Your task to perform on an android device: turn on showing notifications on the lock screen Image 0: 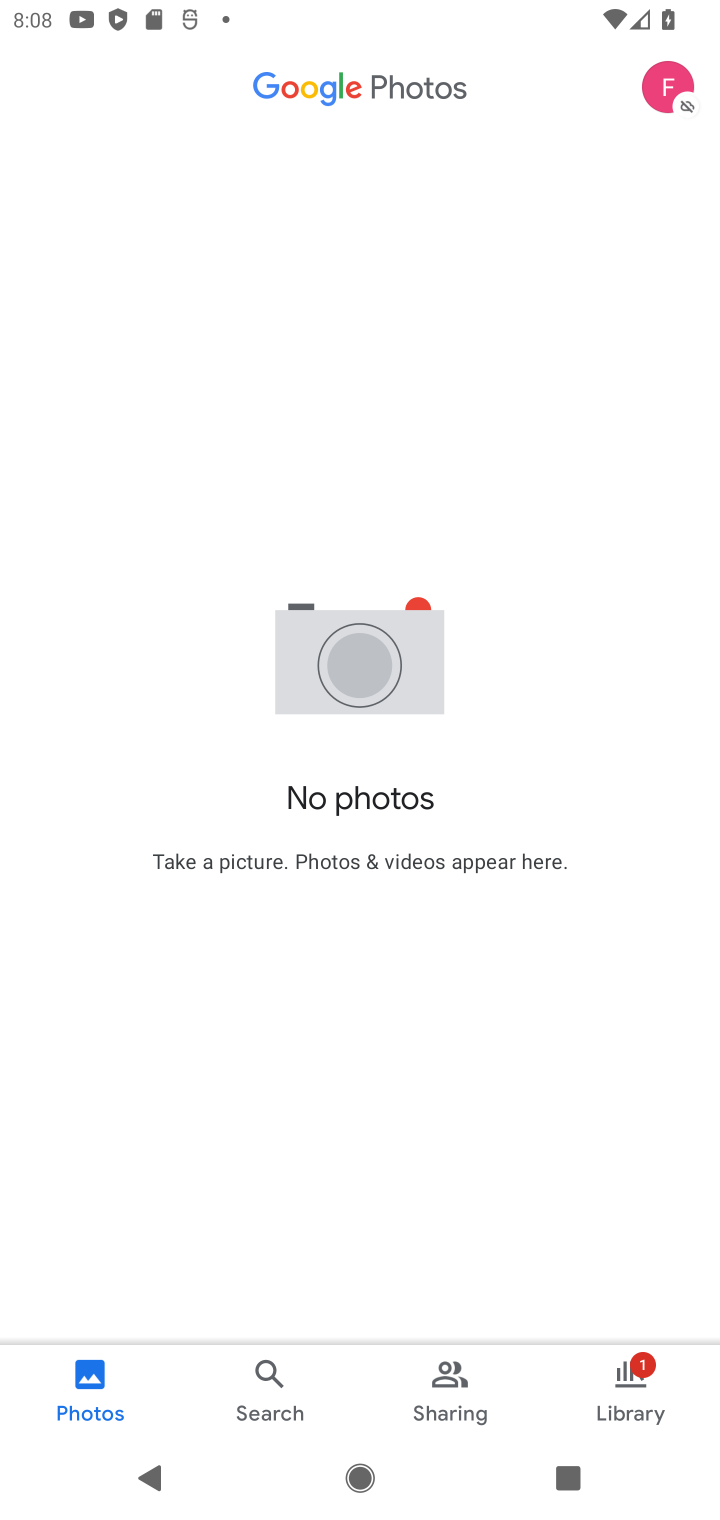
Step 0: press home button
Your task to perform on an android device: turn on showing notifications on the lock screen Image 1: 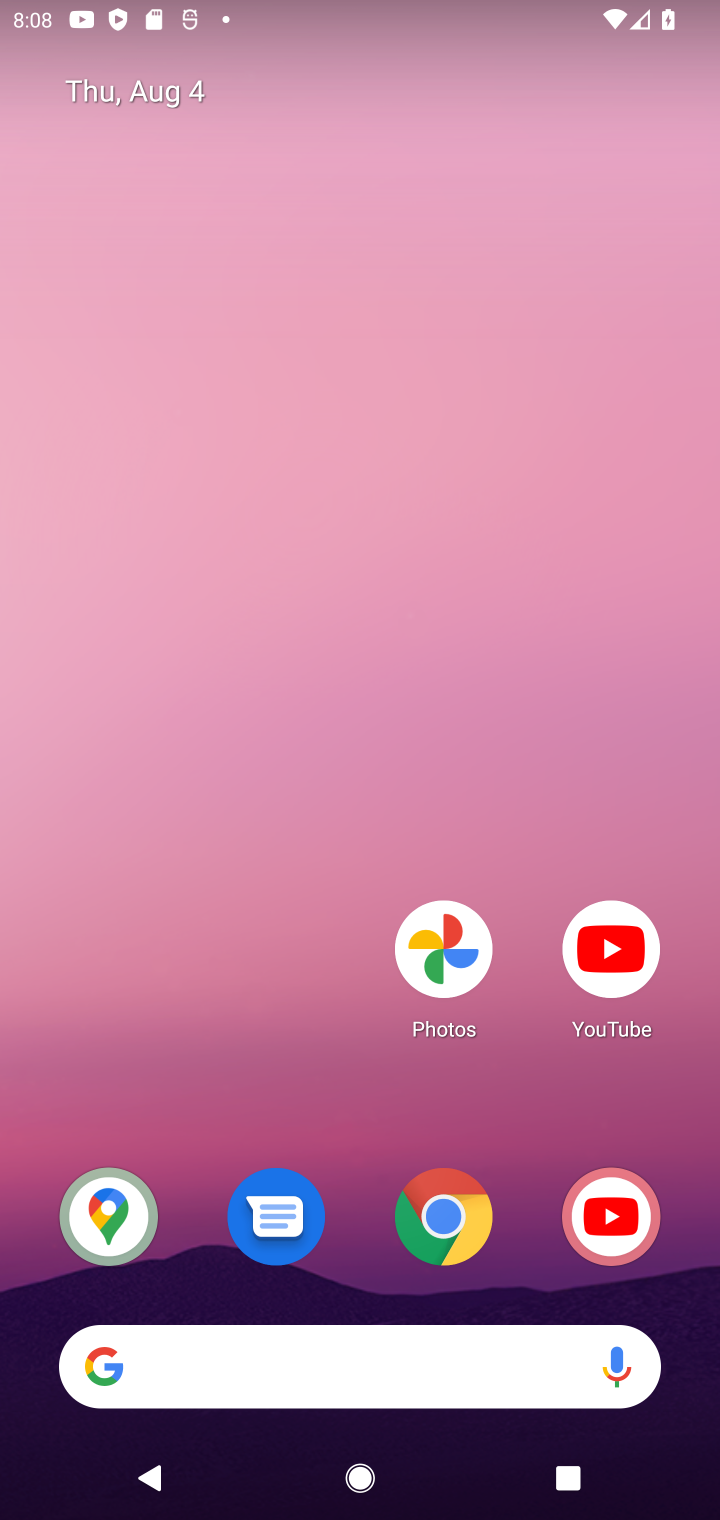
Step 1: drag from (360, 1282) to (303, 217)
Your task to perform on an android device: turn on showing notifications on the lock screen Image 2: 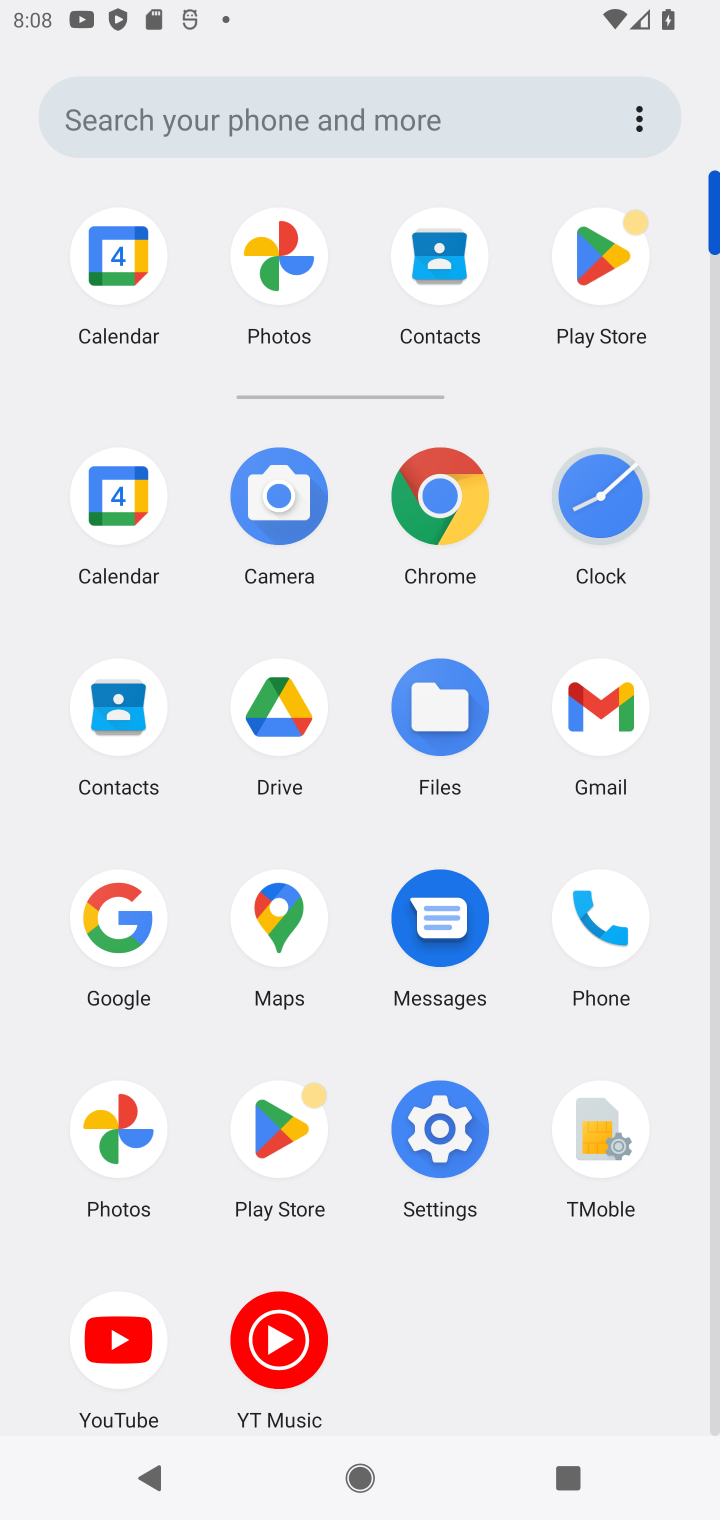
Step 2: click (441, 1121)
Your task to perform on an android device: turn on showing notifications on the lock screen Image 3: 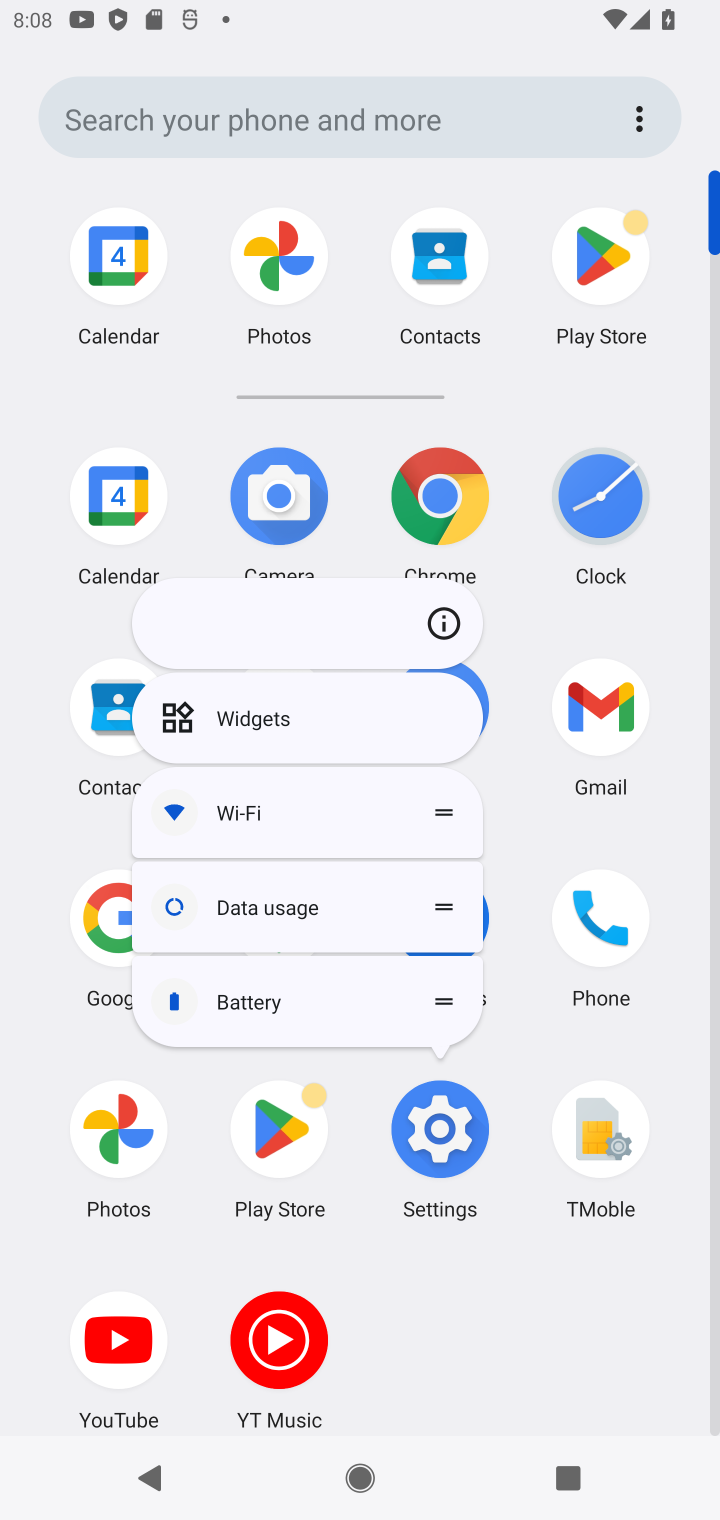
Step 3: click (441, 1122)
Your task to perform on an android device: turn on showing notifications on the lock screen Image 4: 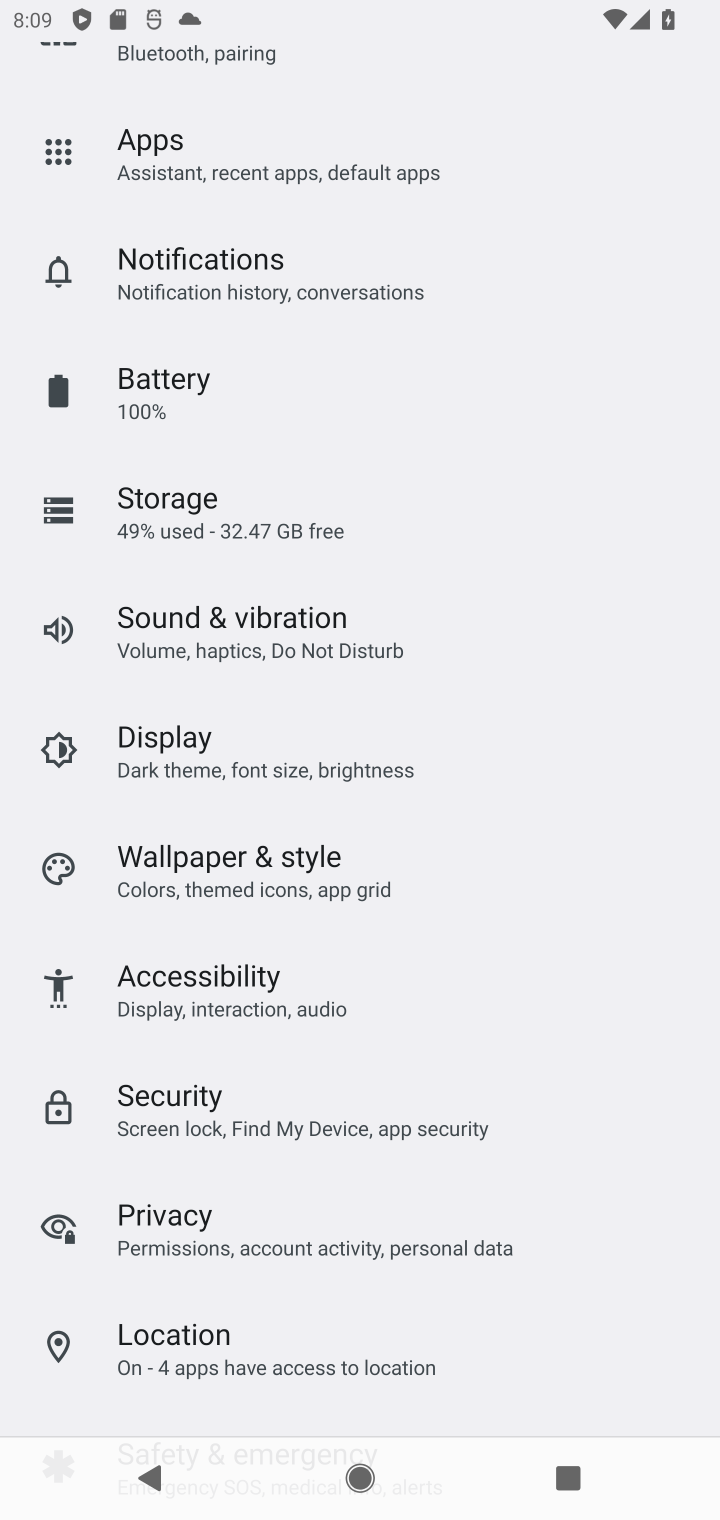
Step 4: click (209, 283)
Your task to perform on an android device: turn on showing notifications on the lock screen Image 5: 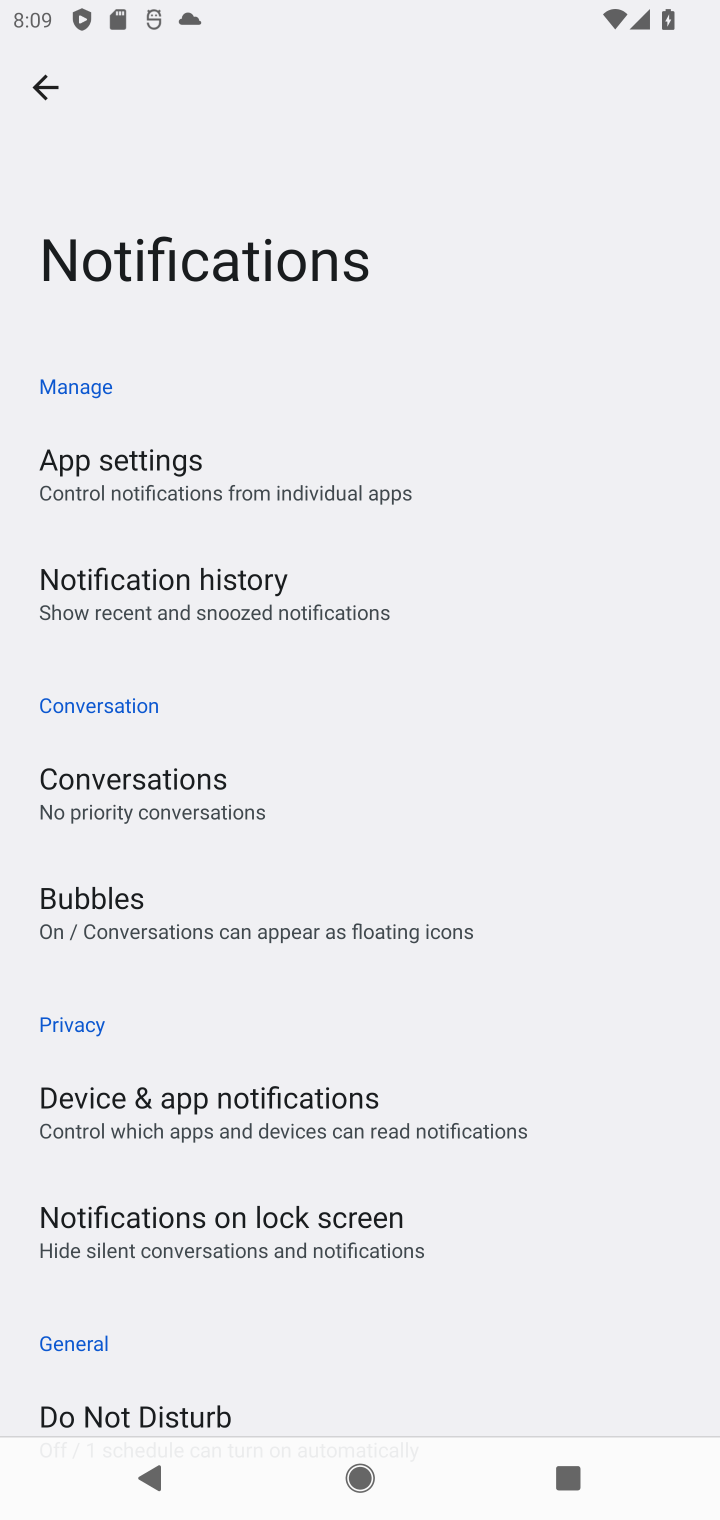
Step 5: drag from (142, 1201) to (111, 451)
Your task to perform on an android device: turn on showing notifications on the lock screen Image 6: 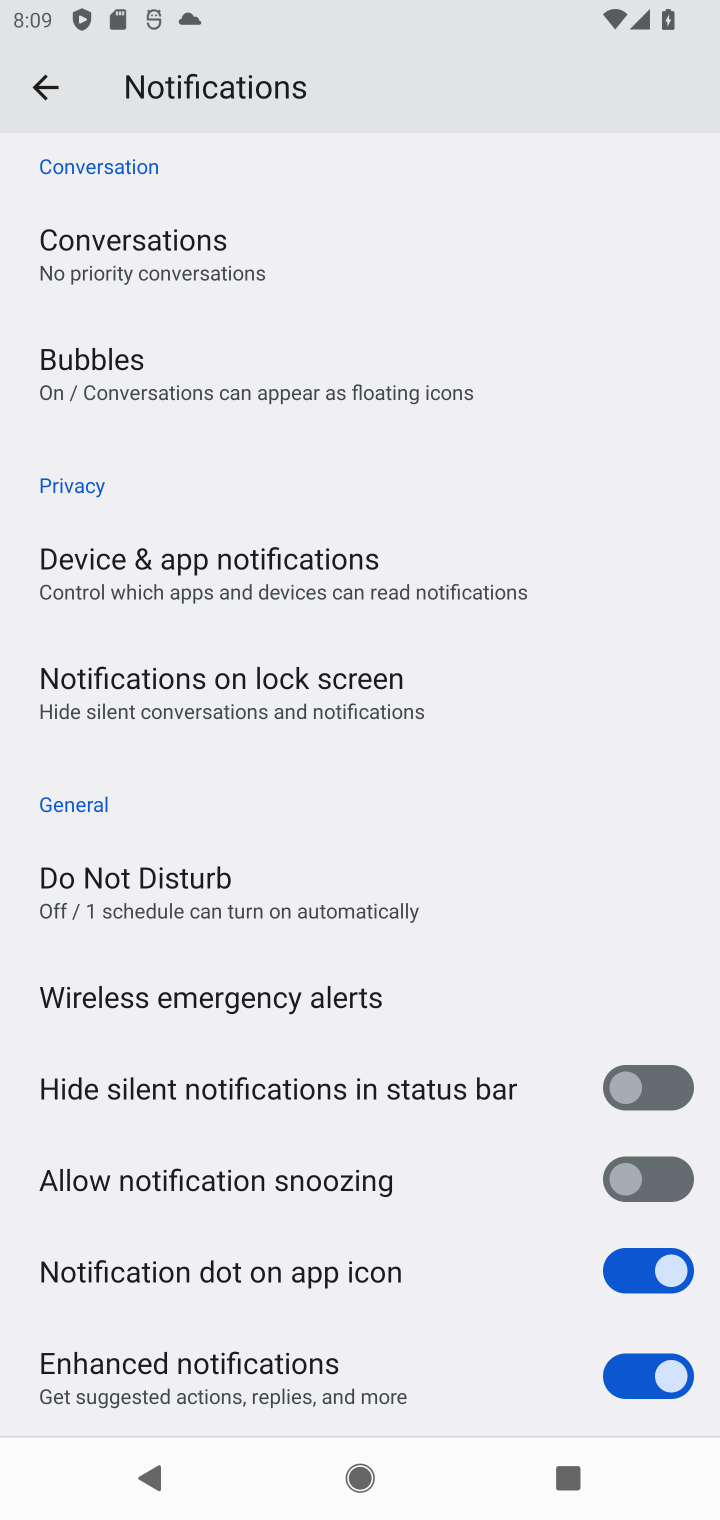
Step 6: click (180, 687)
Your task to perform on an android device: turn on showing notifications on the lock screen Image 7: 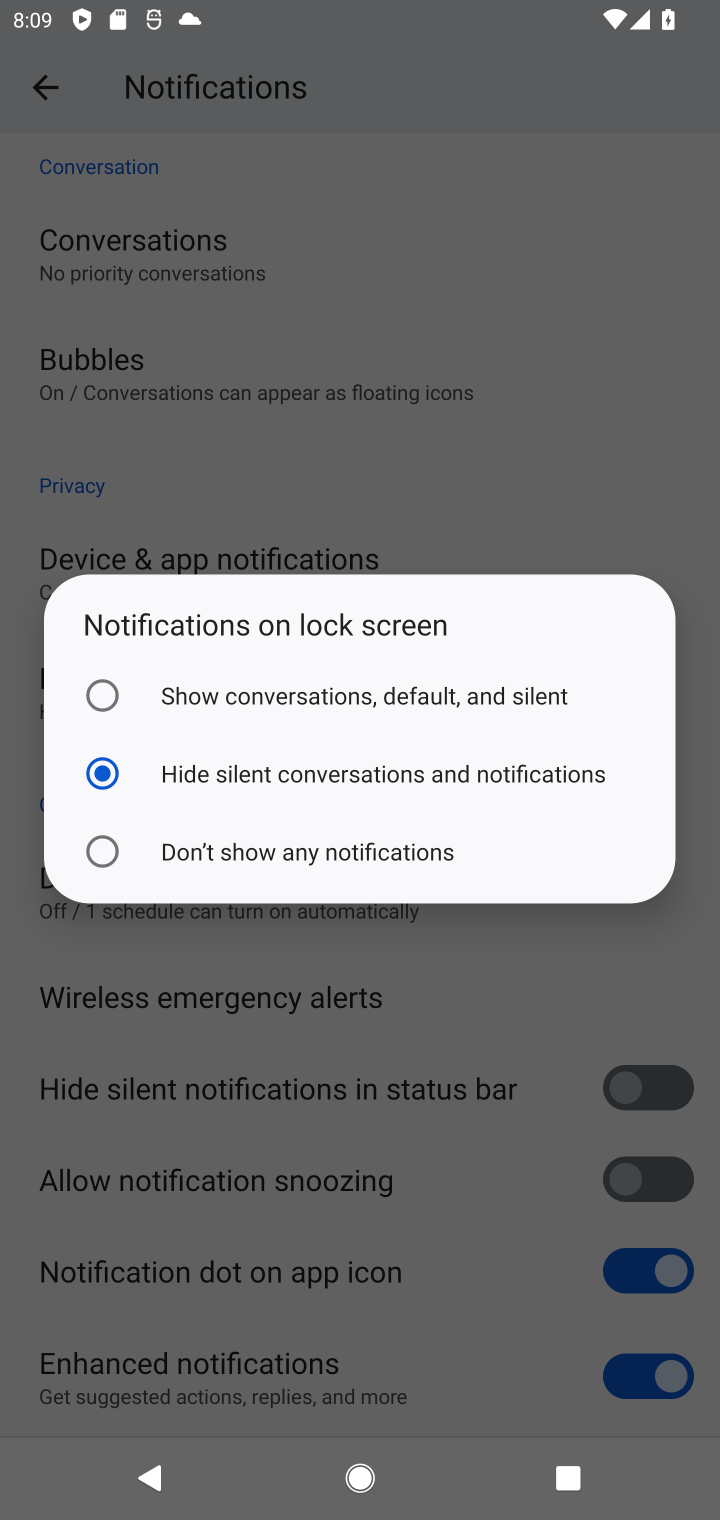
Step 7: click (94, 855)
Your task to perform on an android device: turn on showing notifications on the lock screen Image 8: 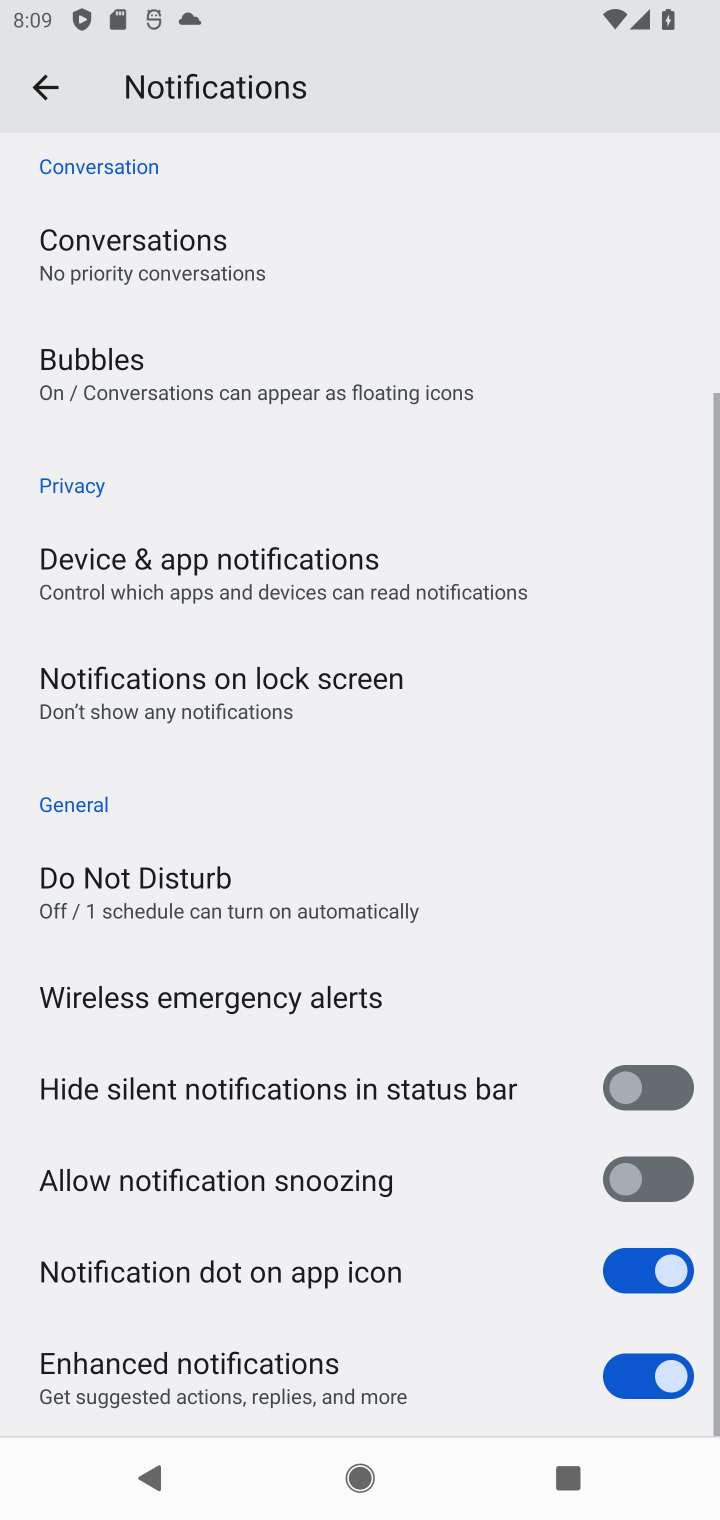
Step 8: task complete